Your task to perform on an android device: What's on my calendar tomorrow? Image 0: 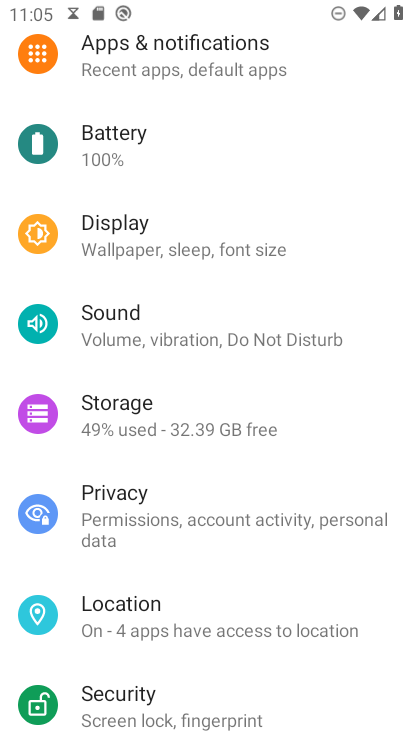
Step 0: press home button
Your task to perform on an android device: What's on my calendar tomorrow? Image 1: 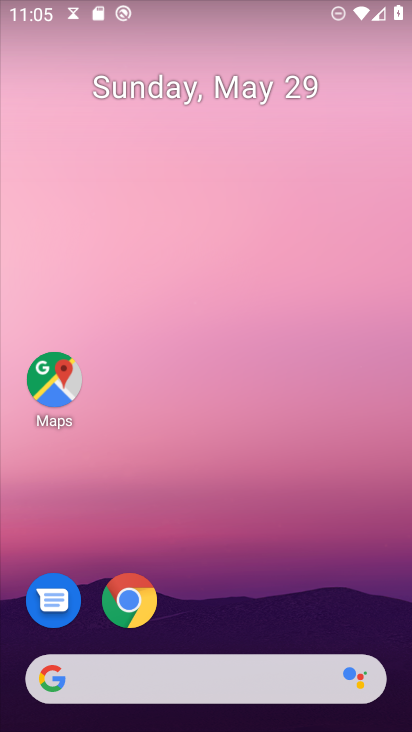
Step 1: drag from (208, 727) to (203, 213)
Your task to perform on an android device: What's on my calendar tomorrow? Image 2: 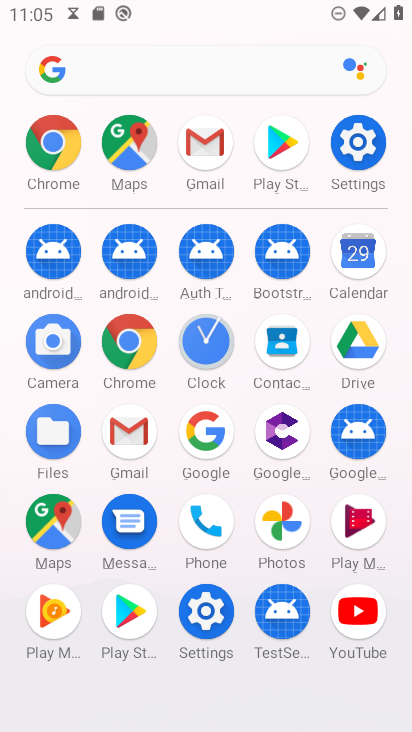
Step 2: click (358, 244)
Your task to perform on an android device: What's on my calendar tomorrow? Image 3: 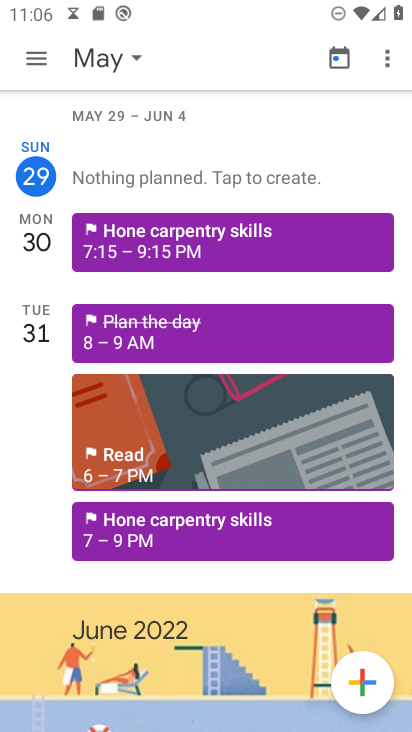
Step 3: click (115, 64)
Your task to perform on an android device: What's on my calendar tomorrow? Image 4: 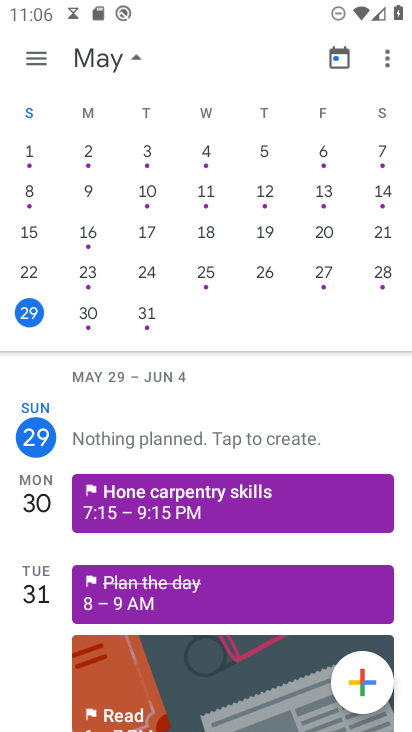
Step 4: click (85, 313)
Your task to perform on an android device: What's on my calendar tomorrow? Image 5: 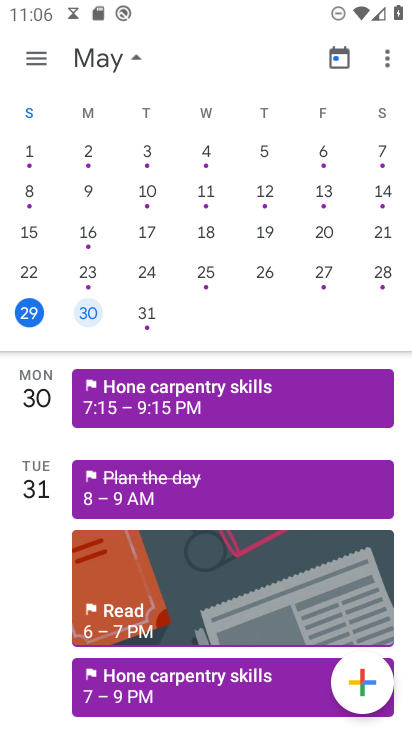
Step 5: click (92, 307)
Your task to perform on an android device: What's on my calendar tomorrow? Image 6: 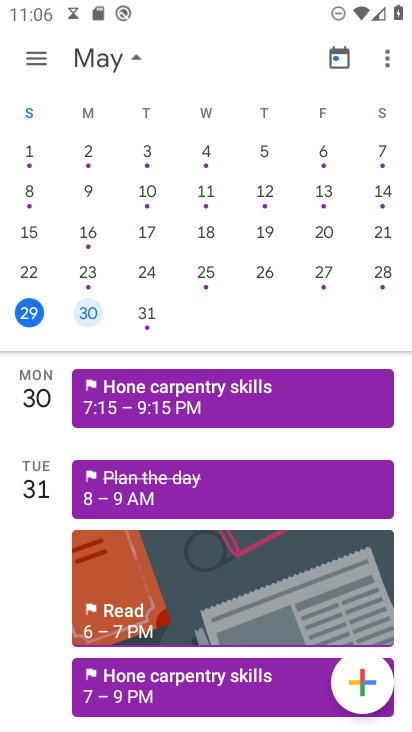
Step 6: click (92, 307)
Your task to perform on an android device: What's on my calendar tomorrow? Image 7: 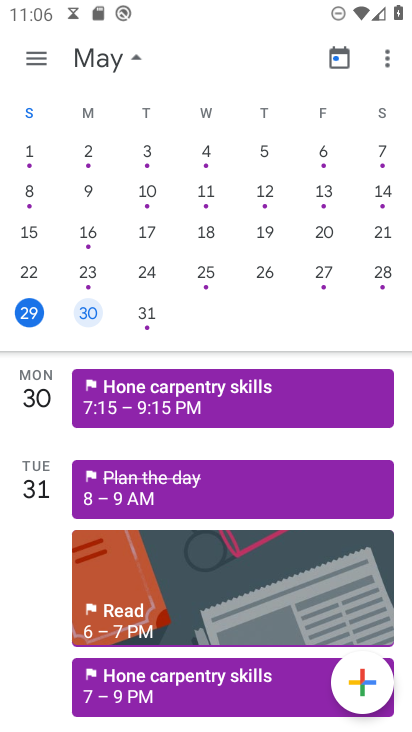
Step 7: click (135, 57)
Your task to perform on an android device: What's on my calendar tomorrow? Image 8: 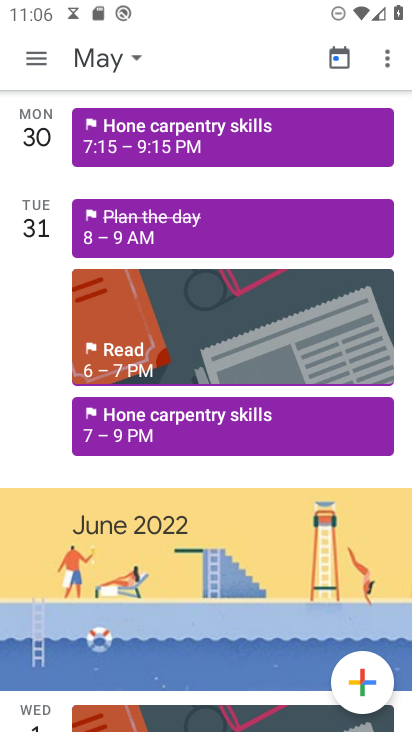
Step 8: task complete